Your task to perform on an android device: check the backup settings in the google photos Image 0: 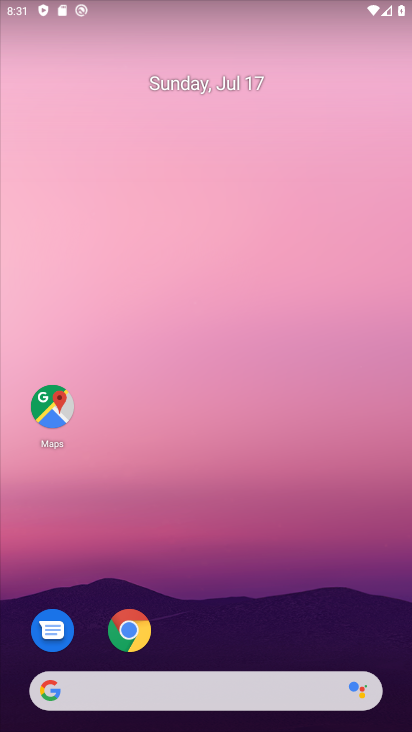
Step 0: drag from (224, 616) to (224, 243)
Your task to perform on an android device: check the backup settings in the google photos Image 1: 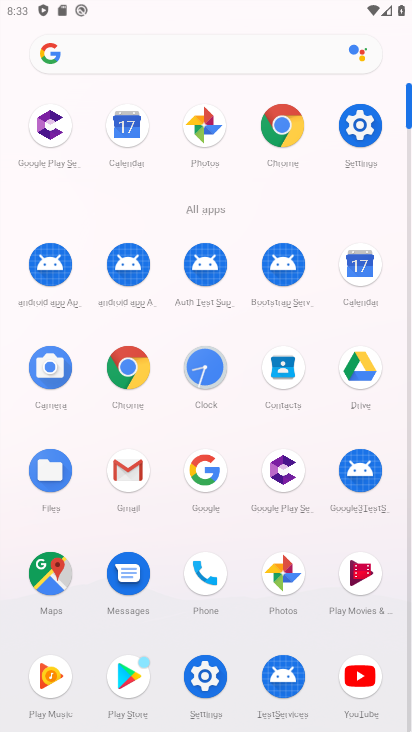
Step 1: click (252, 580)
Your task to perform on an android device: check the backup settings in the google photos Image 2: 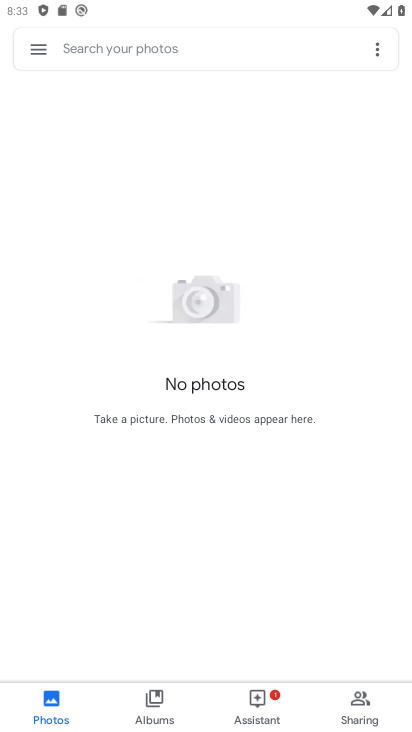
Step 2: click (41, 66)
Your task to perform on an android device: check the backup settings in the google photos Image 3: 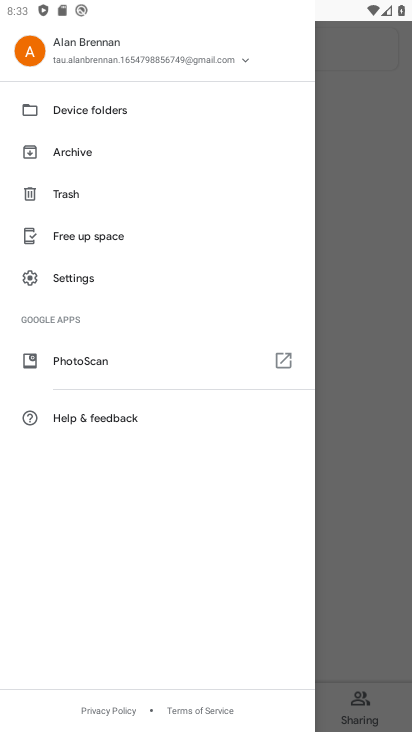
Step 3: click (62, 272)
Your task to perform on an android device: check the backup settings in the google photos Image 4: 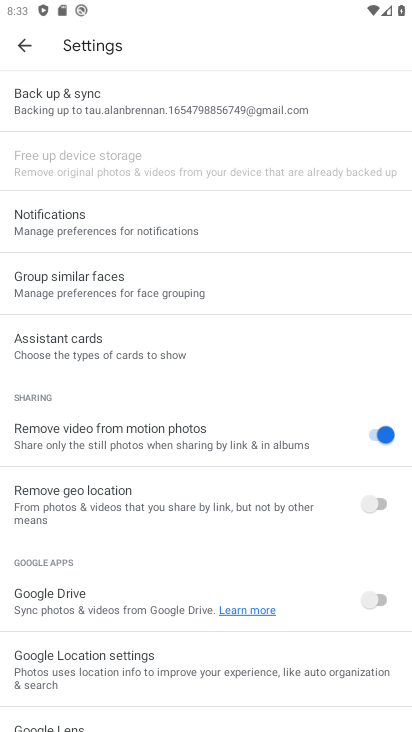
Step 4: click (75, 123)
Your task to perform on an android device: check the backup settings in the google photos Image 5: 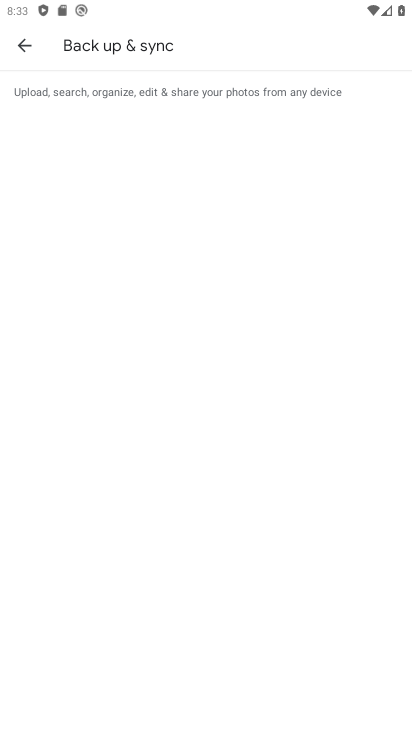
Step 5: task complete